Your task to perform on an android device: Open my contact list Image 0: 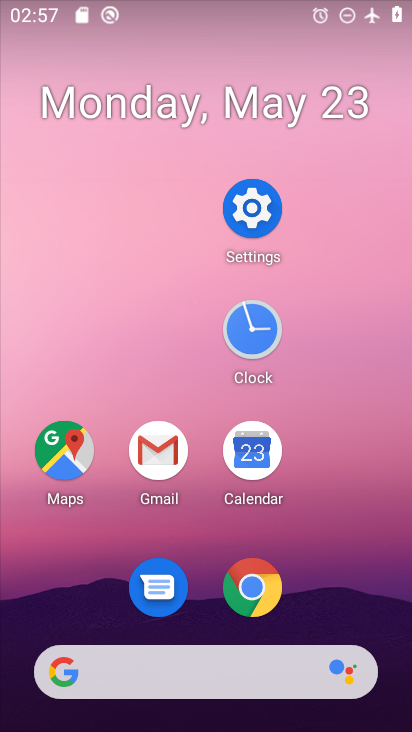
Step 0: click (257, 475)
Your task to perform on an android device: Open my contact list Image 1: 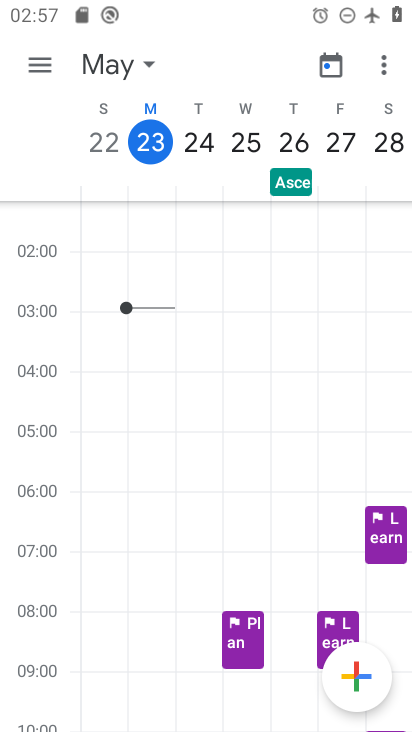
Step 1: press home button
Your task to perform on an android device: Open my contact list Image 2: 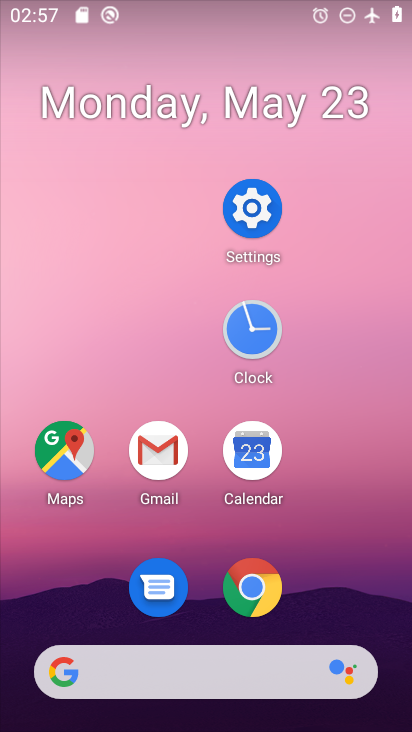
Step 2: drag from (338, 589) to (342, 146)
Your task to perform on an android device: Open my contact list Image 3: 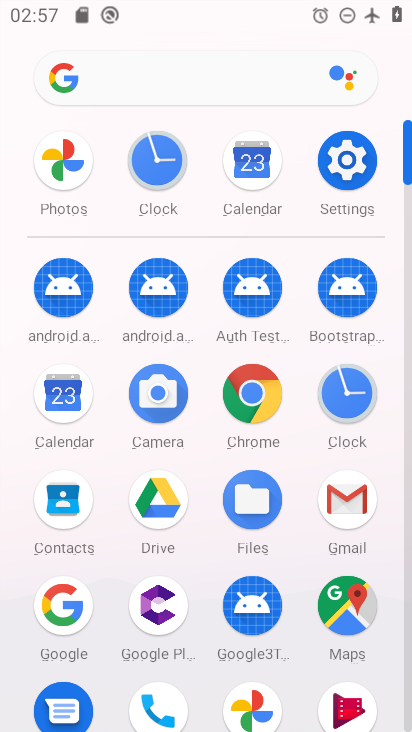
Step 3: click (58, 433)
Your task to perform on an android device: Open my contact list Image 4: 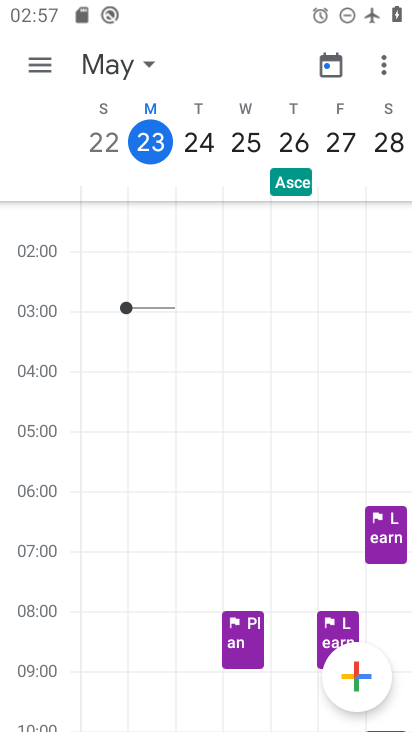
Step 4: press back button
Your task to perform on an android device: Open my contact list Image 5: 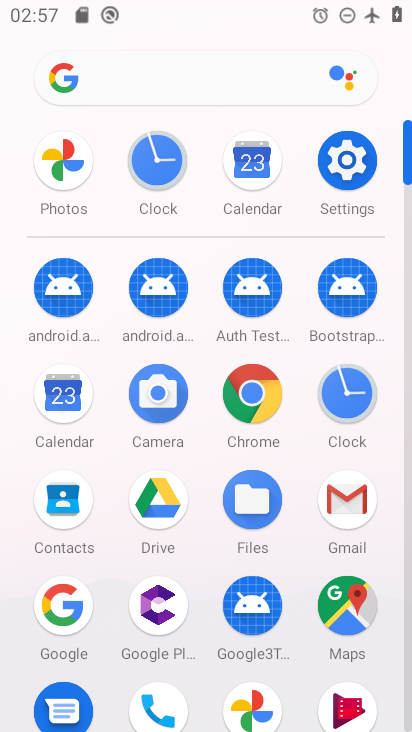
Step 5: drag from (47, 539) to (254, 382)
Your task to perform on an android device: Open my contact list Image 6: 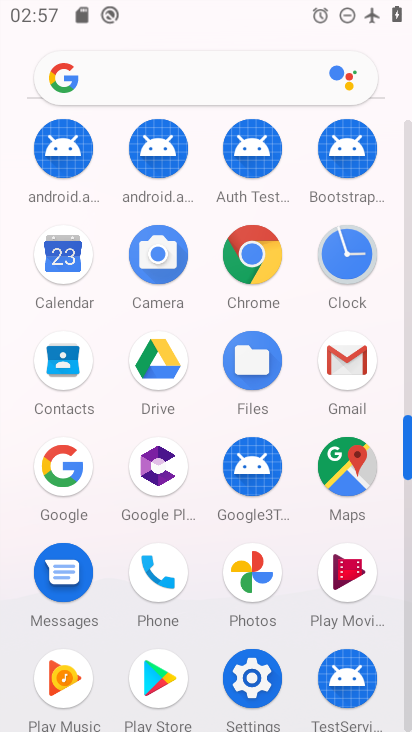
Step 6: drag from (56, 398) to (137, 338)
Your task to perform on an android device: Open my contact list Image 7: 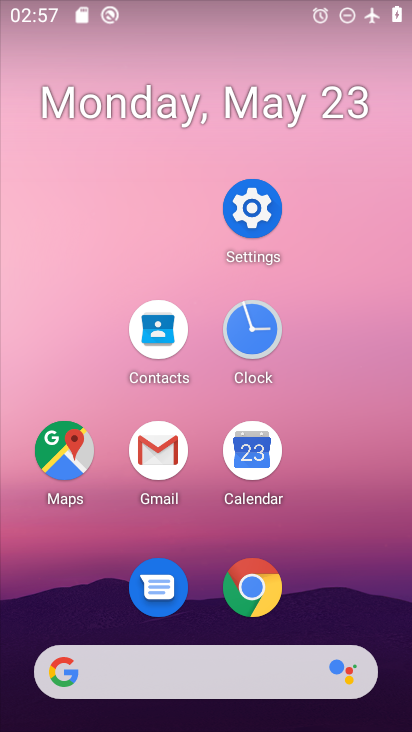
Step 7: click (171, 349)
Your task to perform on an android device: Open my contact list Image 8: 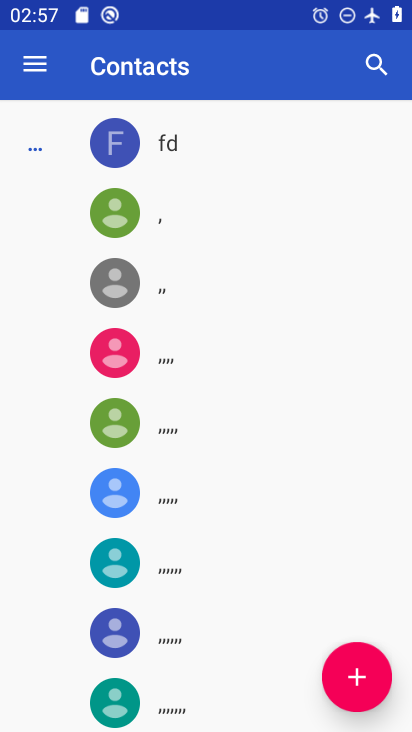
Step 8: task complete